Your task to perform on an android device: Open notification settings Image 0: 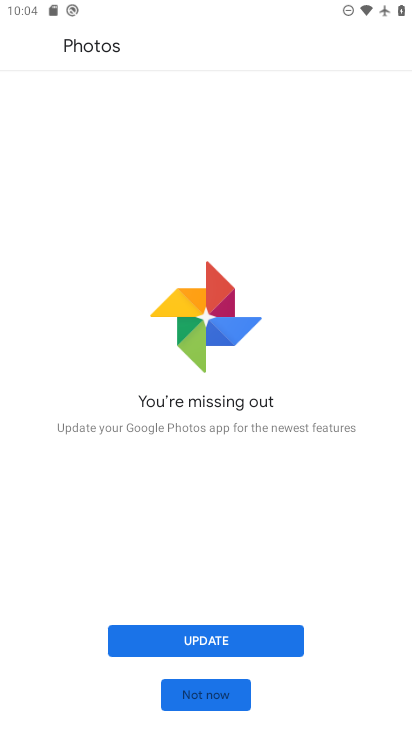
Step 0: press home button
Your task to perform on an android device: Open notification settings Image 1: 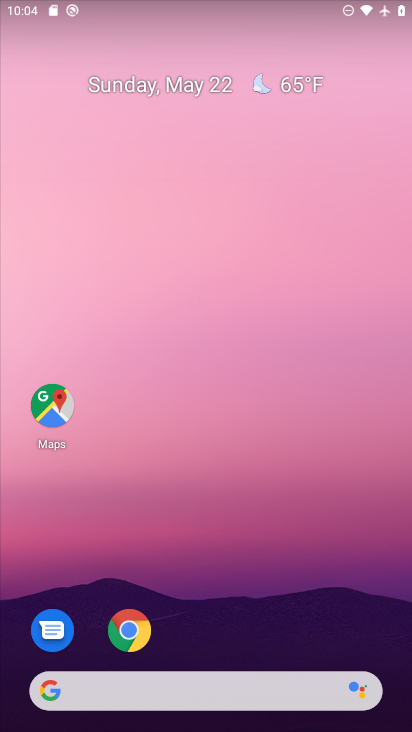
Step 1: drag from (197, 689) to (378, 697)
Your task to perform on an android device: Open notification settings Image 2: 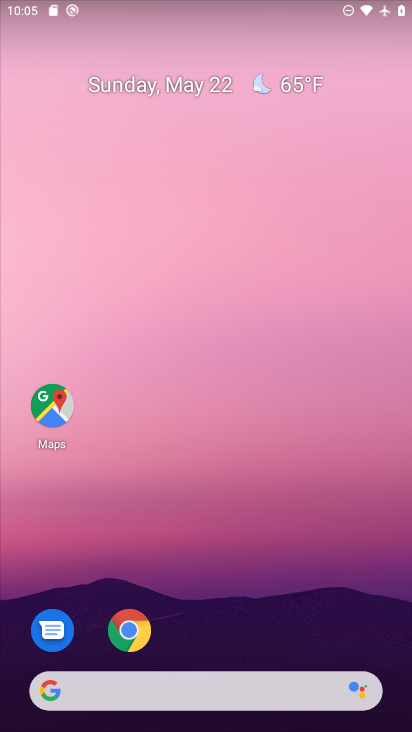
Step 2: drag from (174, 683) to (284, 4)
Your task to perform on an android device: Open notification settings Image 3: 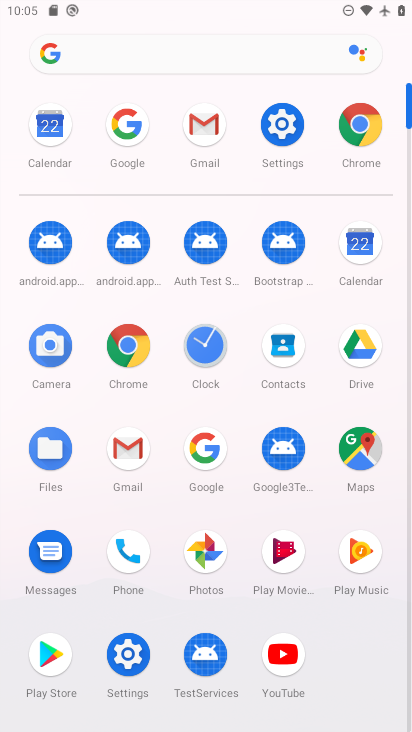
Step 3: click (283, 125)
Your task to perform on an android device: Open notification settings Image 4: 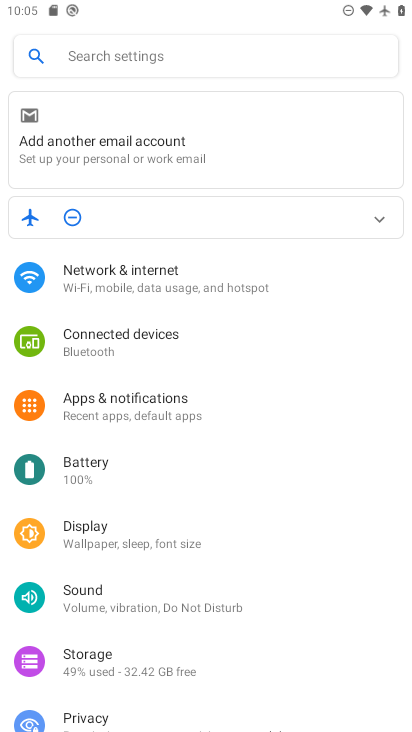
Step 4: click (156, 398)
Your task to perform on an android device: Open notification settings Image 5: 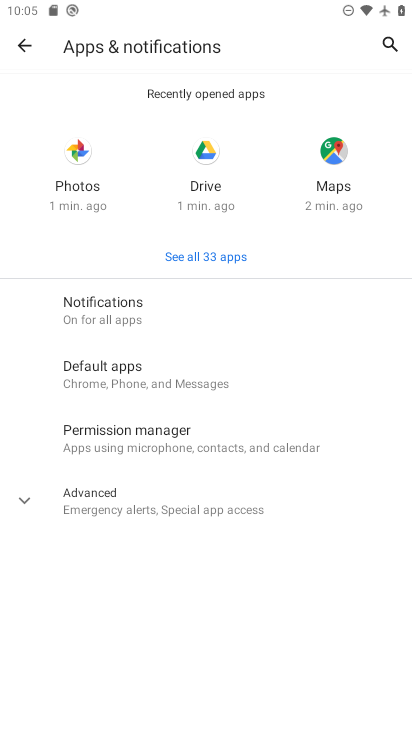
Step 5: click (107, 305)
Your task to perform on an android device: Open notification settings Image 6: 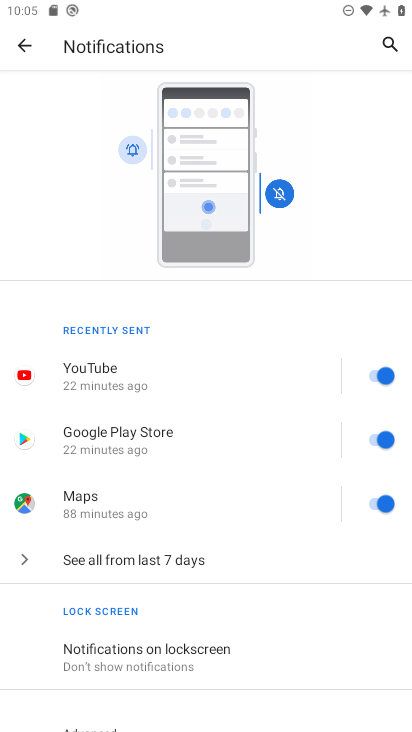
Step 6: task complete